Your task to perform on an android device: toggle priority inbox in the gmail app Image 0: 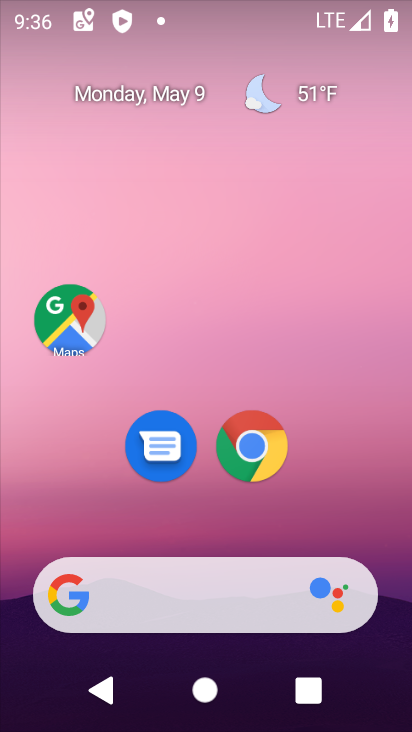
Step 0: drag from (287, 520) to (266, 100)
Your task to perform on an android device: toggle priority inbox in the gmail app Image 1: 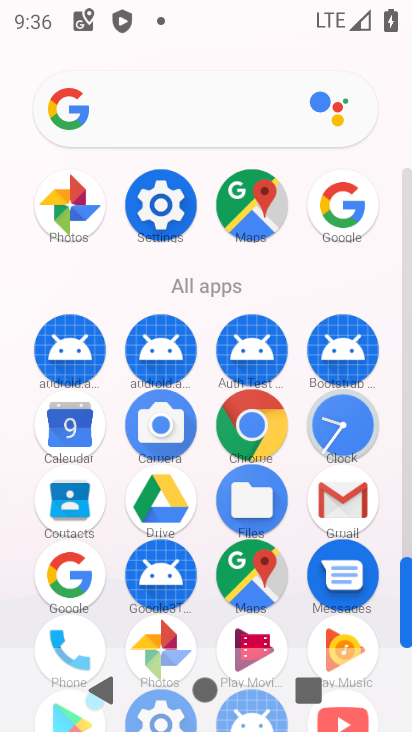
Step 1: click (330, 508)
Your task to perform on an android device: toggle priority inbox in the gmail app Image 2: 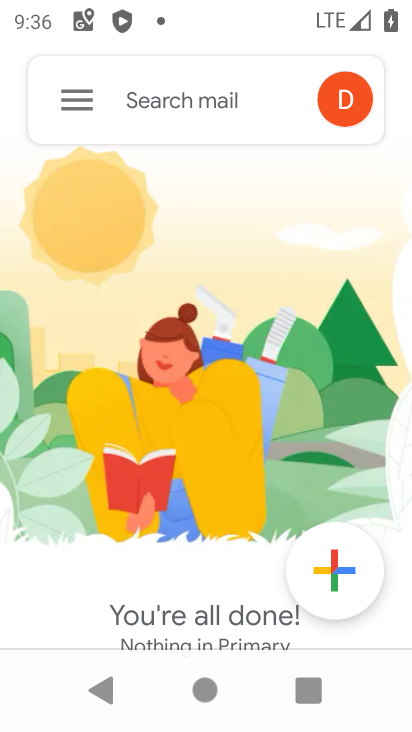
Step 2: click (68, 108)
Your task to perform on an android device: toggle priority inbox in the gmail app Image 3: 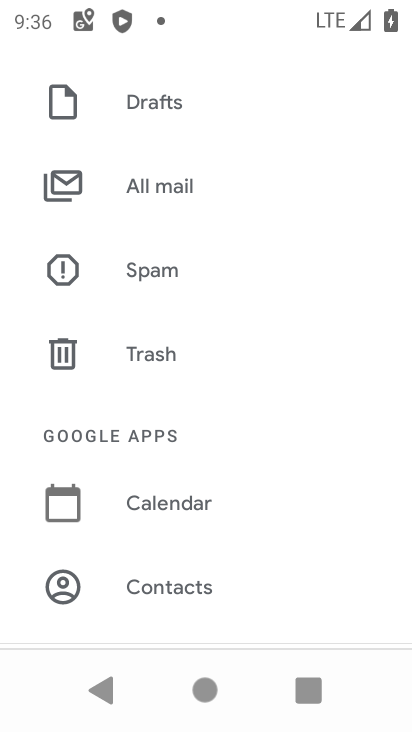
Step 3: drag from (165, 571) to (183, 212)
Your task to perform on an android device: toggle priority inbox in the gmail app Image 4: 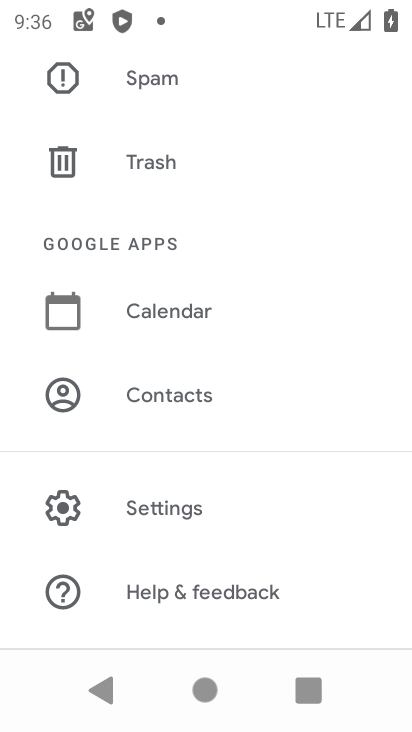
Step 4: click (202, 511)
Your task to perform on an android device: toggle priority inbox in the gmail app Image 5: 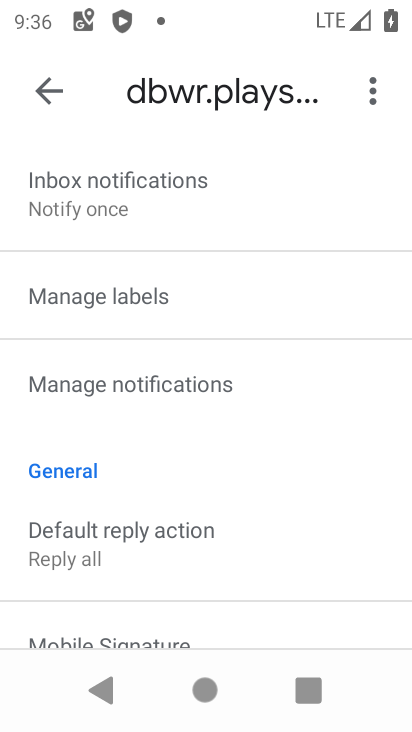
Step 5: drag from (157, 500) to (193, 563)
Your task to perform on an android device: toggle priority inbox in the gmail app Image 6: 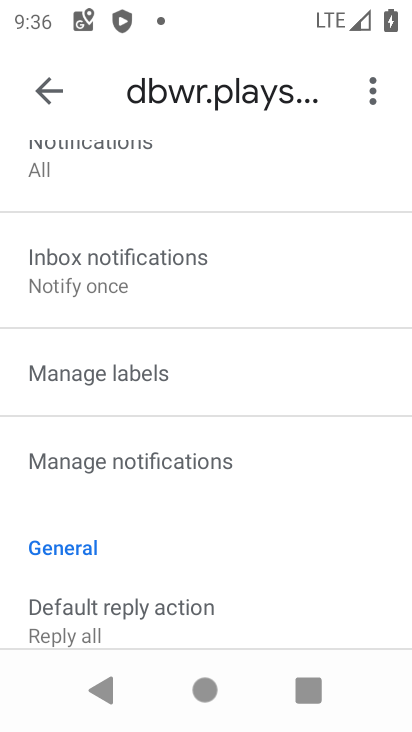
Step 6: drag from (249, 219) to (268, 517)
Your task to perform on an android device: toggle priority inbox in the gmail app Image 7: 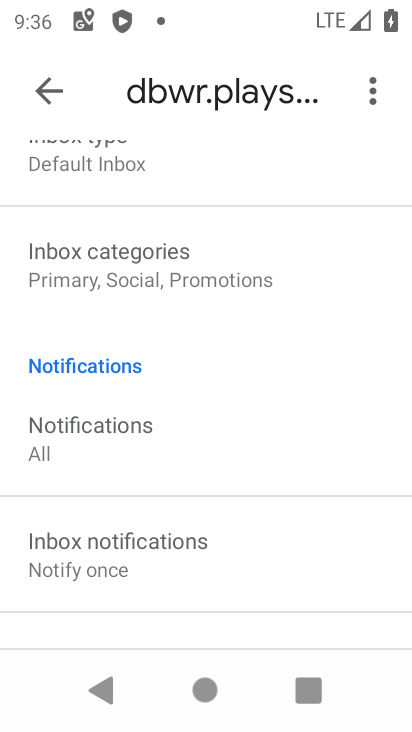
Step 7: click (145, 162)
Your task to perform on an android device: toggle priority inbox in the gmail app Image 8: 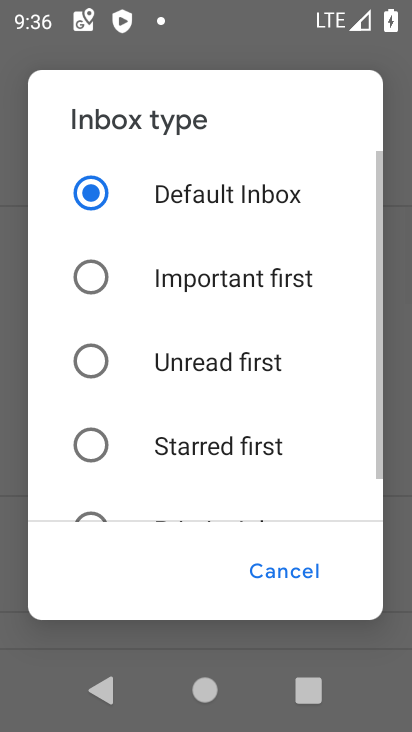
Step 8: drag from (109, 476) to (100, 233)
Your task to perform on an android device: toggle priority inbox in the gmail app Image 9: 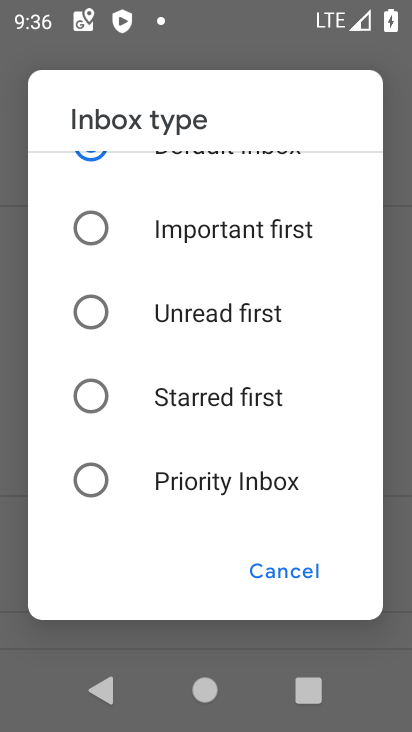
Step 9: click (89, 489)
Your task to perform on an android device: toggle priority inbox in the gmail app Image 10: 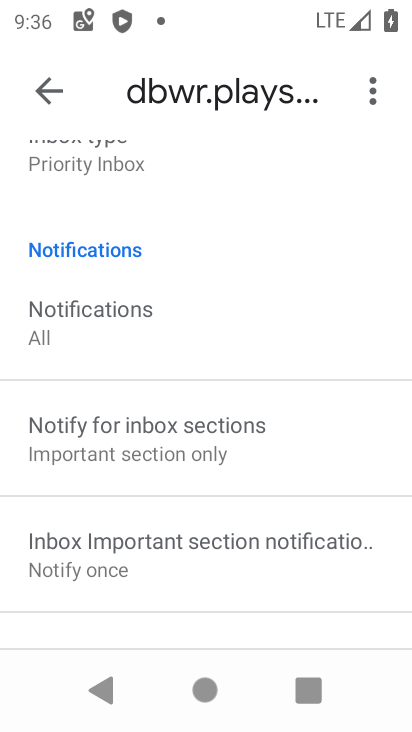
Step 10: task complete